Your task to perform on an android device: Go to settings Image 0: 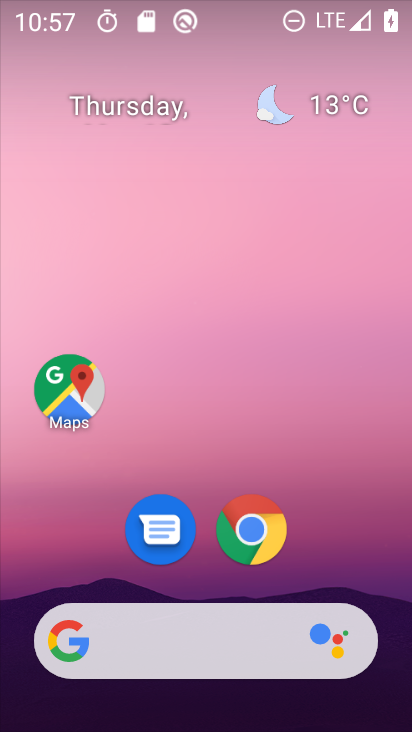
Step 0: drag from (341, 562) to (99, 24)
Your task to perform on an android device: Go to settings Image 1: 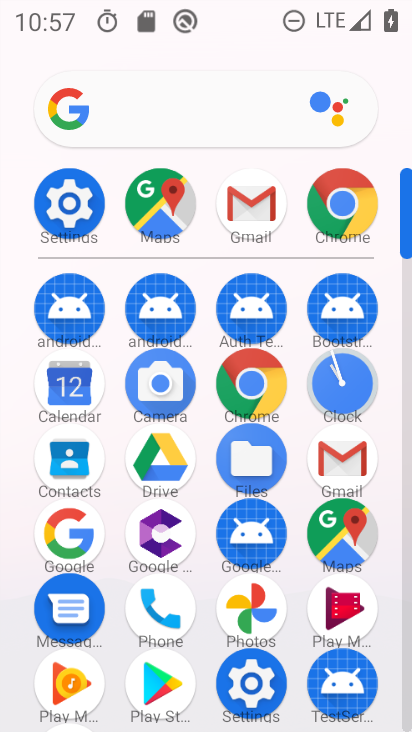
Step 1: click (72, 206)
Your task to perform on an android device: Go to settings Image 2: 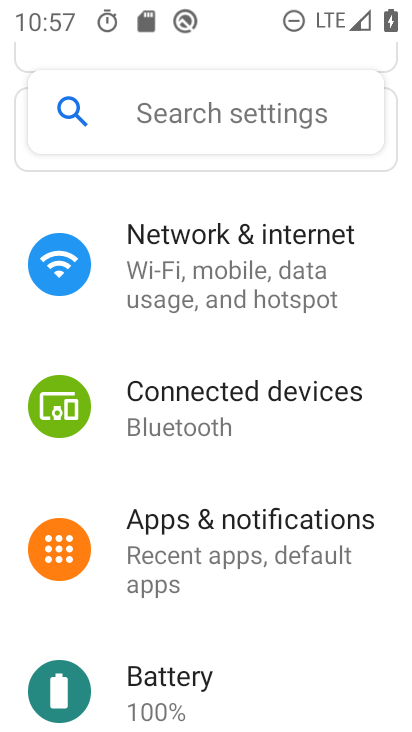
Step 2: task complete